Your task to perform on an android device: clear all cookies in the chrome app Image 0: 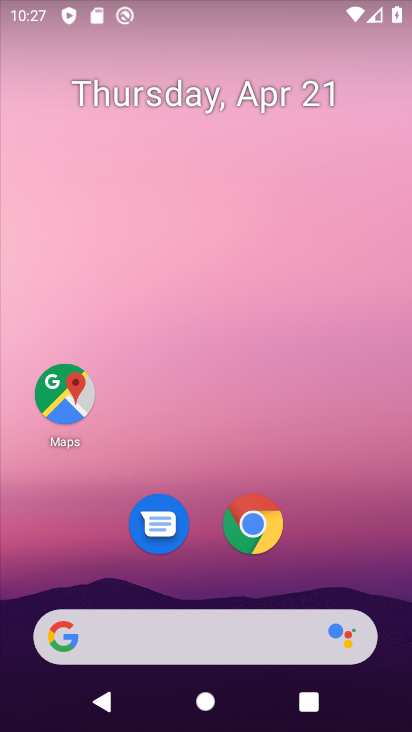
Step 0: click (263, 529)
Your task to perform on an android device: clear all cookies in the chrome app Image 1: 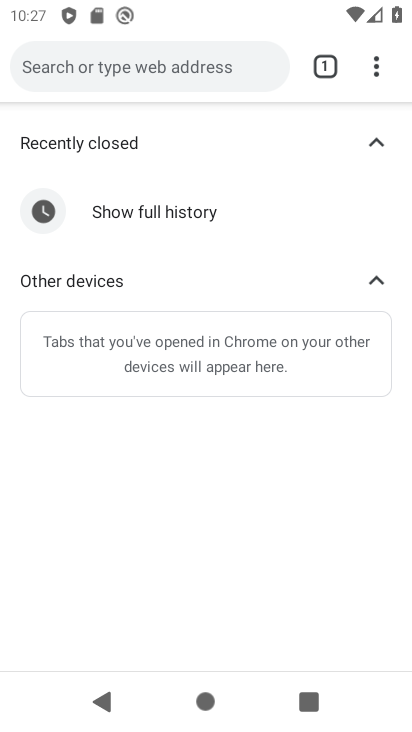
Step 1: drag from (373, 66) to (165, 372)
Your task to perform on an android device: clear all cookies in the chrome app Image 2: 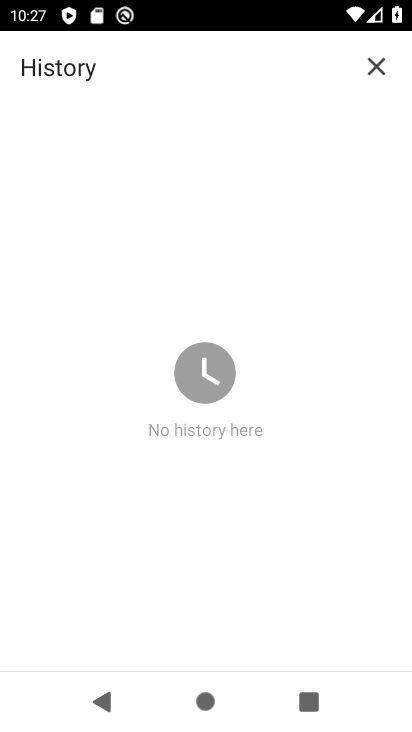
Step 2: click (372, 63)
Your task to perform on an android device: clear all cookies in the chrome app Image 3: 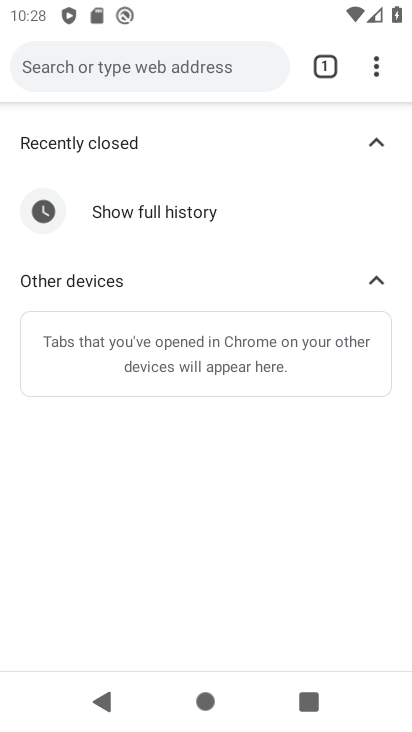
Step 3: drag from (377, 60) to (218, 562)
Your task to perform on an android device: clear all cookies in the chrome app Image 4: 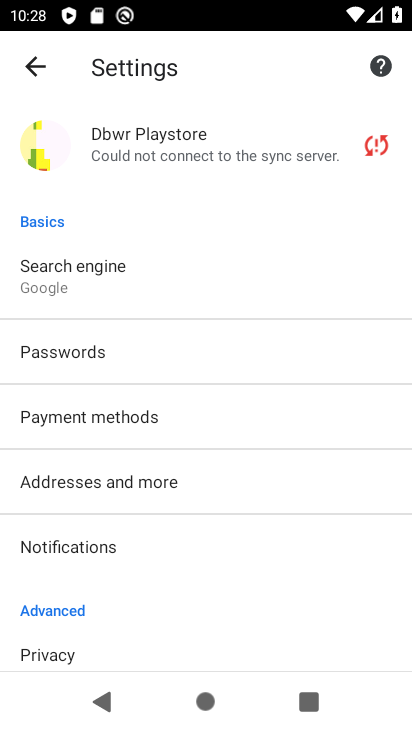
Step 4: click (199, 652)
Your task to perform on an android device: clear all cookies in the chrome app Image 5: 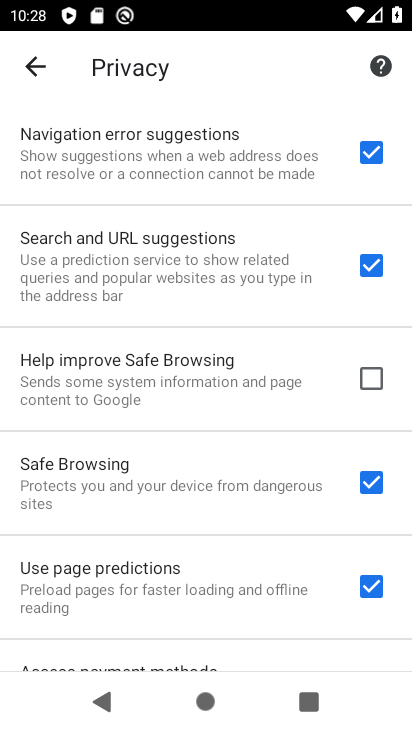
Step 5: drag from (268, 567) to (279, 227)
Your task to perform on an android device: clear all cookies in the chrome app Image 6: 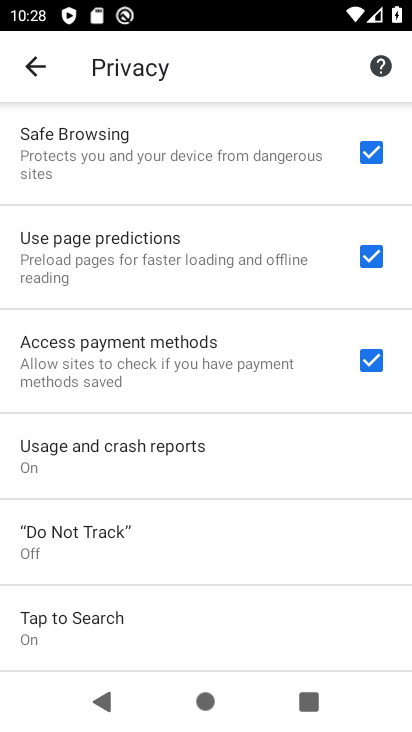
Step 6: drag from (224, 558) to (234, 291)
Your task to perform on an android device: clear all cookies in the chrome app Image 7: 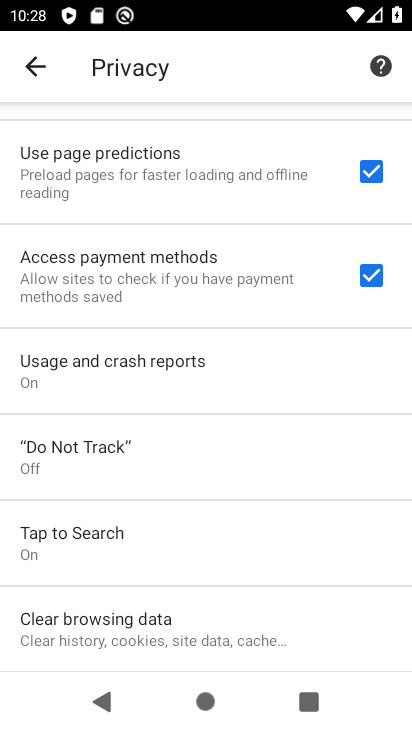
Step 7: click (212, 630)
Your task to perform on an android device: clear all cookies in the chrome app Image 8: 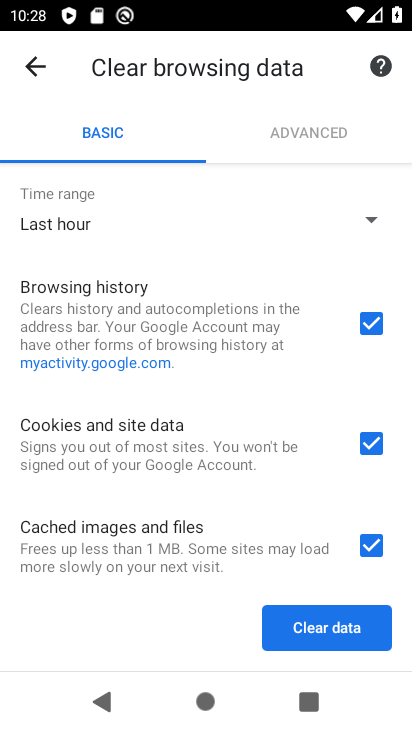
Step 8: click (357, 539)
Your task to perform on an android device: clear all cookies in the chrome app Image 9: 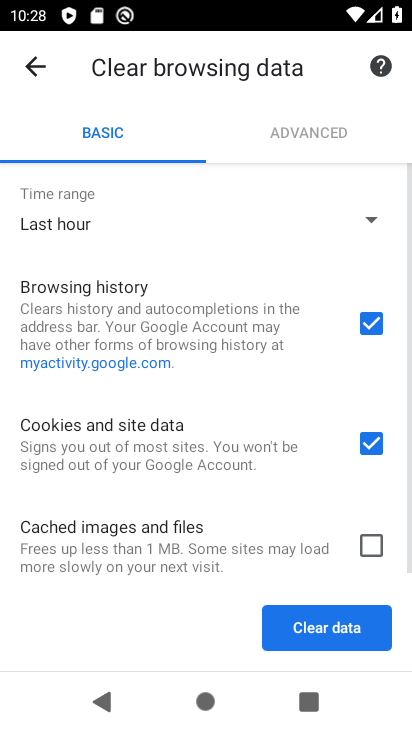
Step 9: click (367, 319)
Your task to perform on an android device: clear all cookies in the chrome app Image 10: 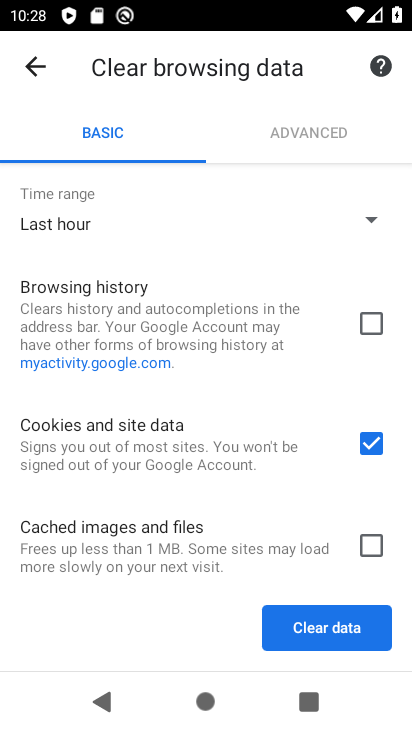
Step 10: click (311, 621)
Your task to perform on an android device: clear all cookies in the chrome app Image 11: 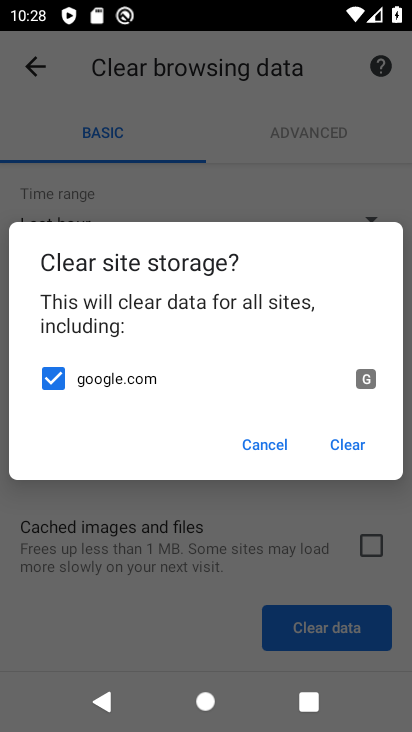
Step 11: click (344, 445)
Your task to perform on an android device: clear all cookies in the chrome app Image 12: 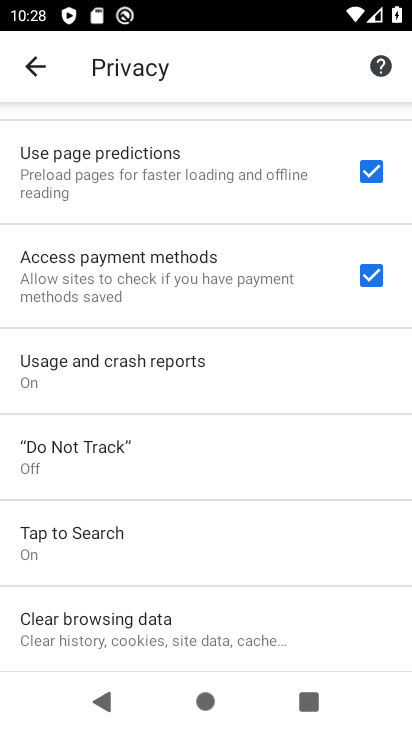
Step 12: task complete